Your task to perform on an android device: turn on data saver in the chrome app Image 0: 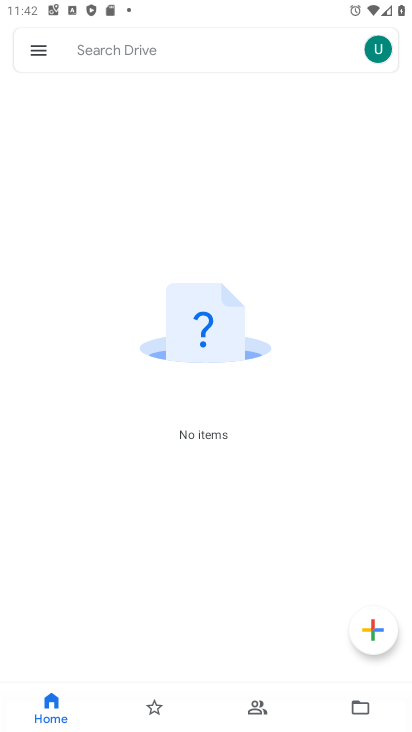
Step 0: press home button
Your task to perform on an android device: turn on data saver in the chrome app Image 1: 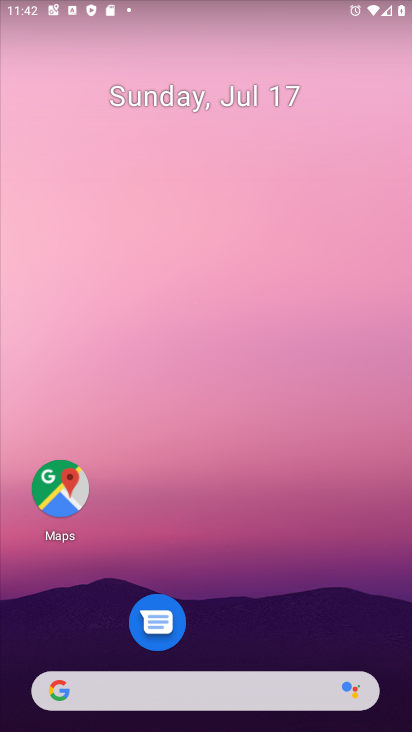
Step 1: drag from (202, 731) to (263, 25)
Your task to perform on an android device: turn on data saver in the chrome app Image 2: 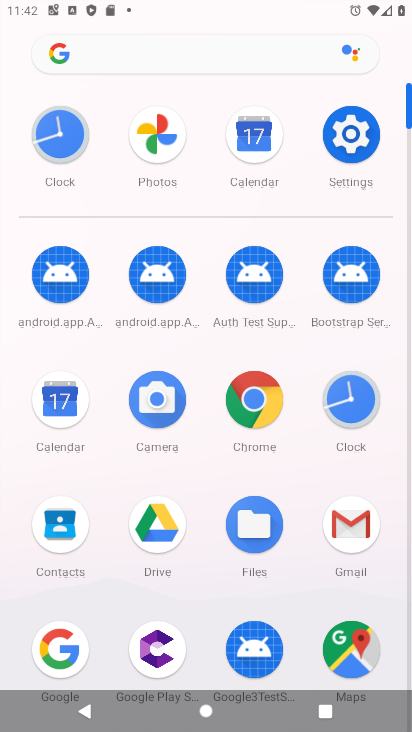
Step 2: click (265, 402)
Your task to perform on an android device: turn on data saver in the chrome app Image 3: 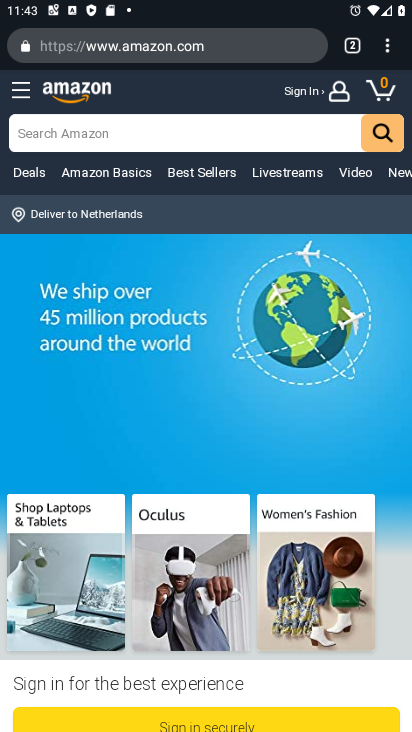
Step 3: click (388, 43)
Your task to perform on an android device: turn on data saver in the chrome app Image 4: 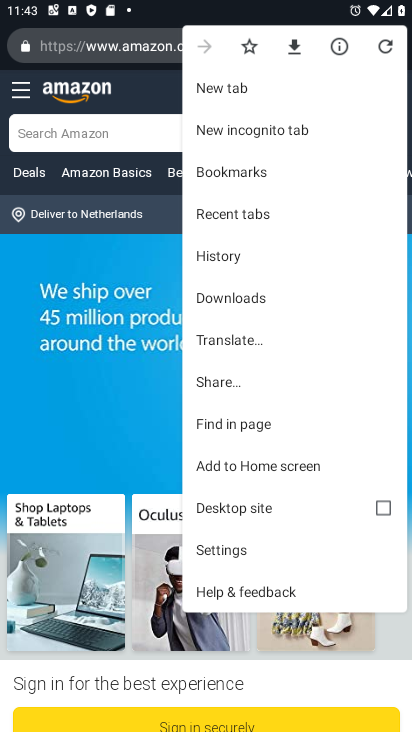
Step 4: click (235, 555)
Your task to perform on an android device: turn on data saver in the chrome app Image 5: 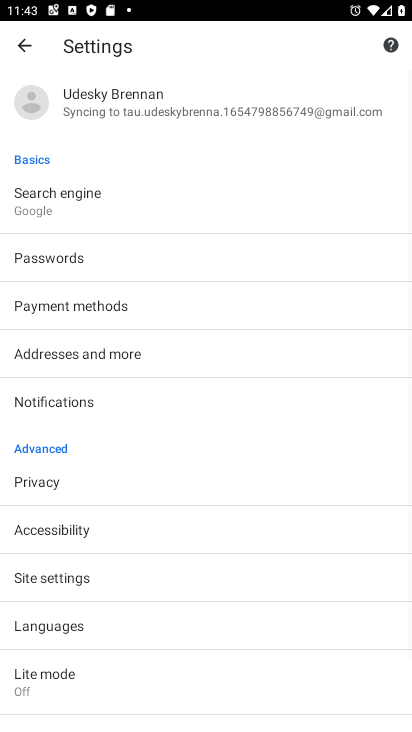
Step 5: click (59, 673)
Your task to perform on an android device: turn on data saver in the chrome app Image 6: 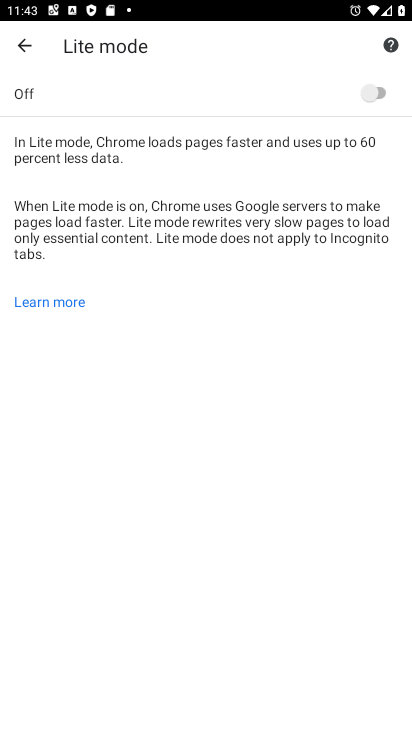
Step 6: click (373, 93)
Your task to perform on an android device: turn on data saver in the chrome app Image 7: 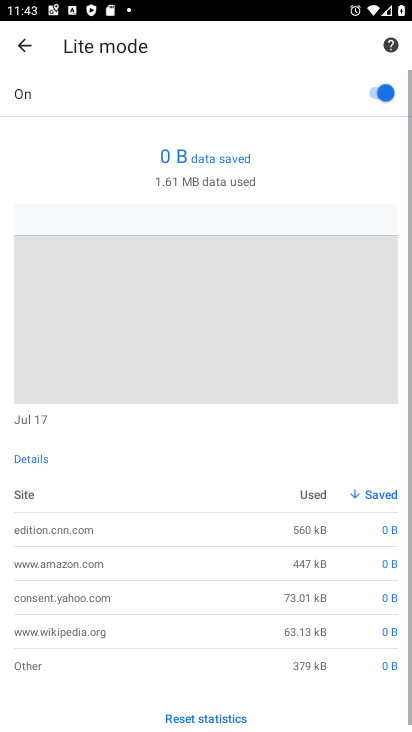
Step 7: task complete